Your task to perform on an android device: Go to privacy settings Image 0: 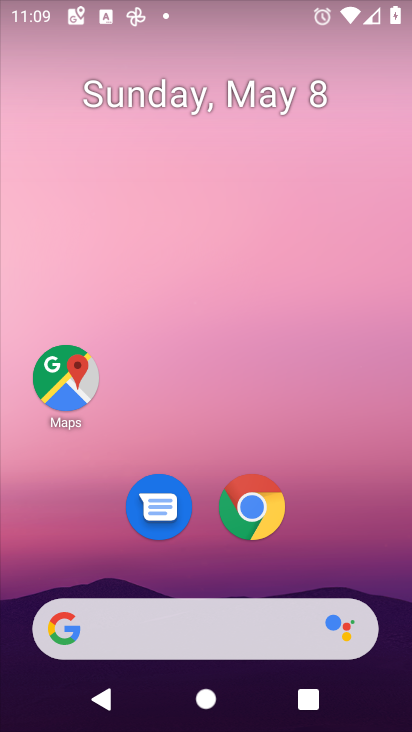
Step 0: drag from (247, 645) to (247, 216)
Your task to perform on an android device: Go to privacy settings Image 1: 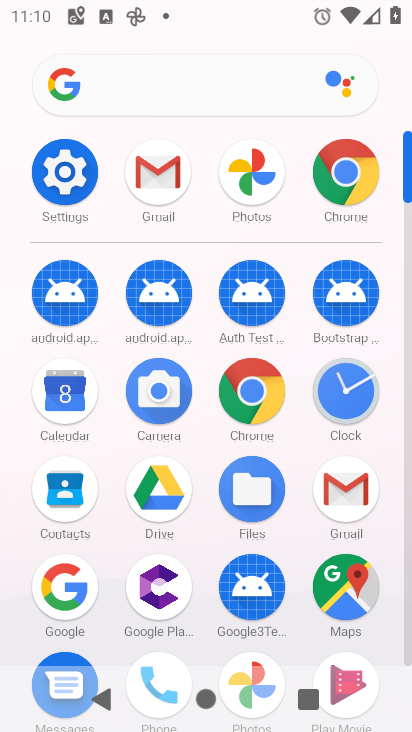
Step 1: click (46, 170)
Your task to perform on an android device: Go to privacy settings Image 2: 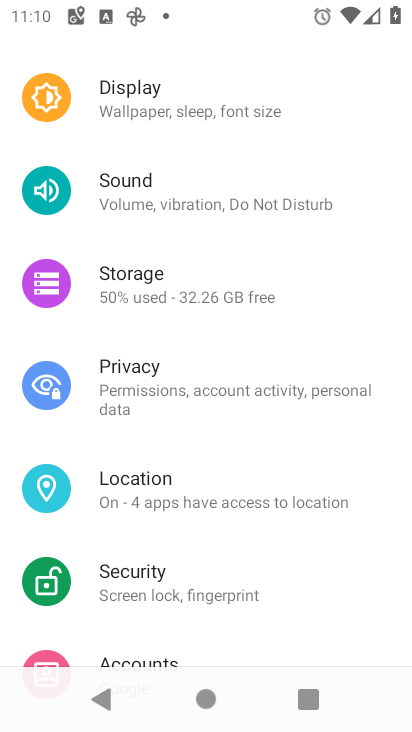
Step 2: click (230, 376)
Your task to perform on an android device: Go to privacy settings Image 3: 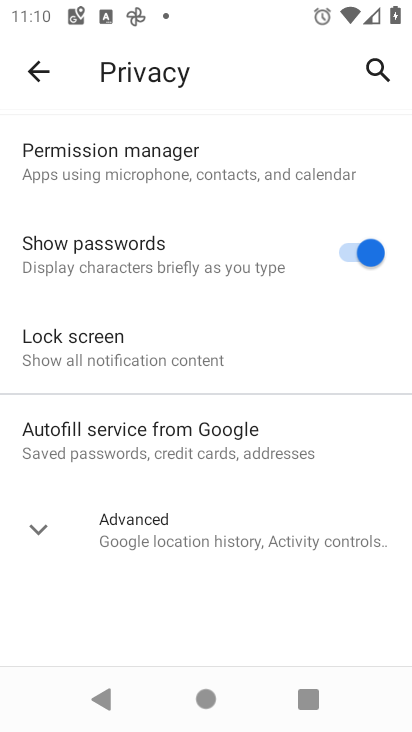
Step 3: task complete